Your task to perform on an android device: set an alarm Image 0: 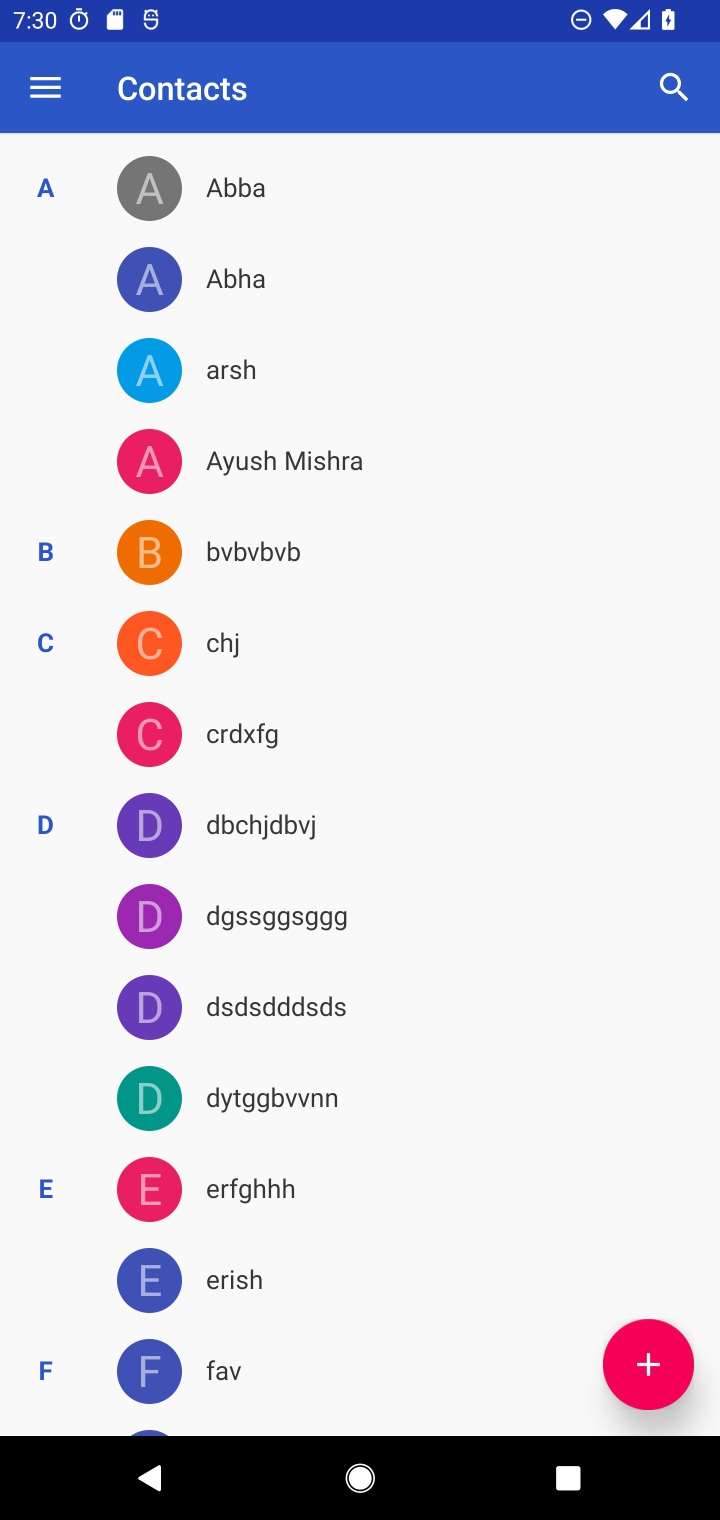
Step 0: press home button
Your task to perform on an android device: set an alarm Image 1: 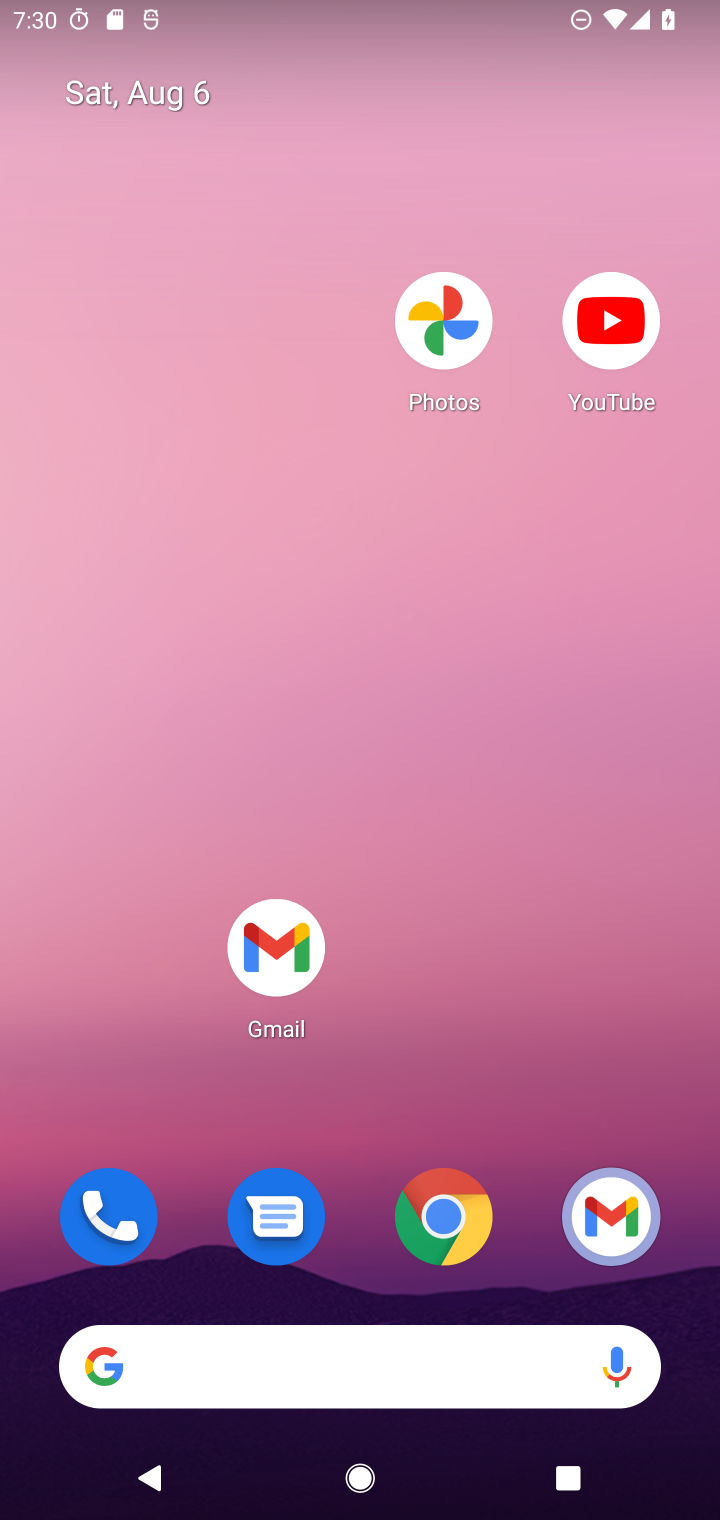
Step 1: drag from (493, 1058) to (568, 0)
Your task to perform on an android device: set an alarm Image 2: 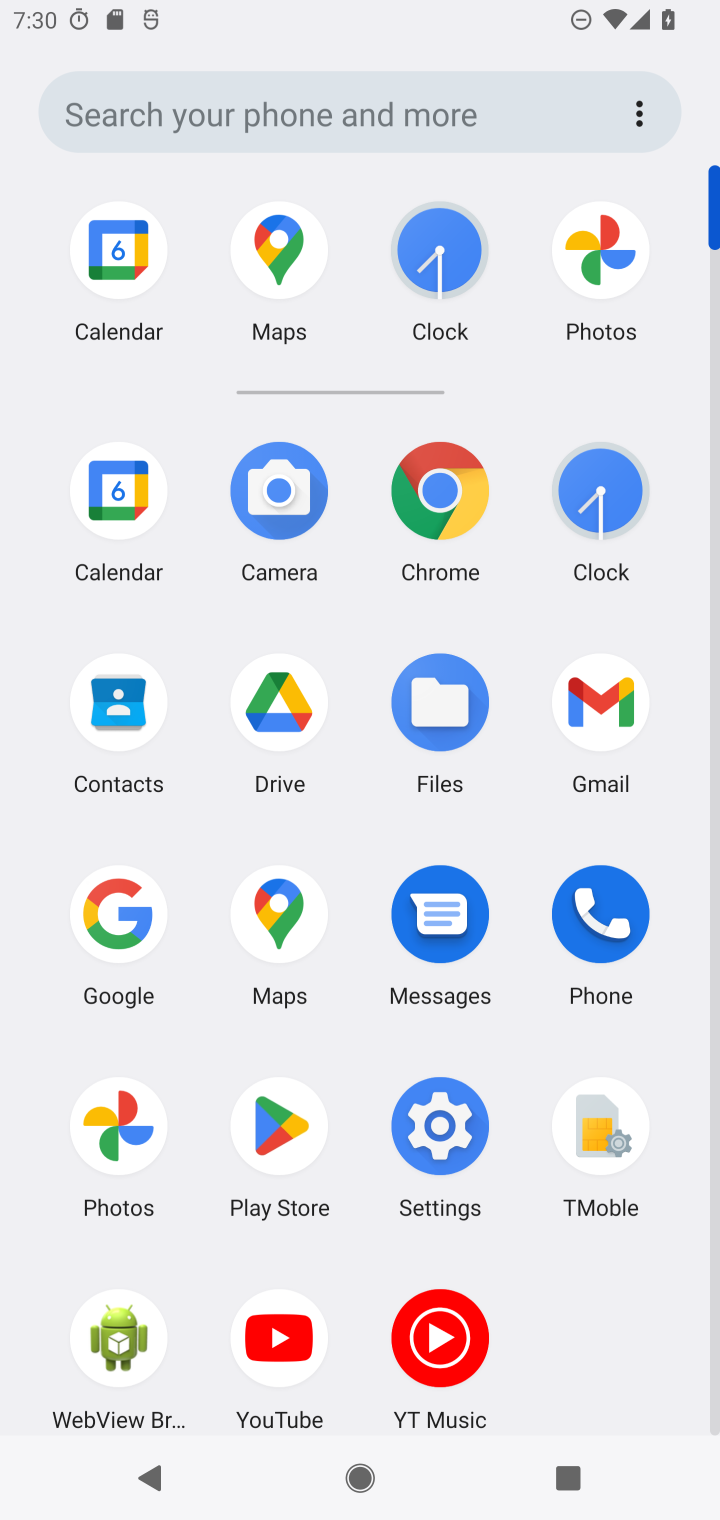
Step 2: click (605, 505)
Your task to perform on an android device: set an alarm Image 3: 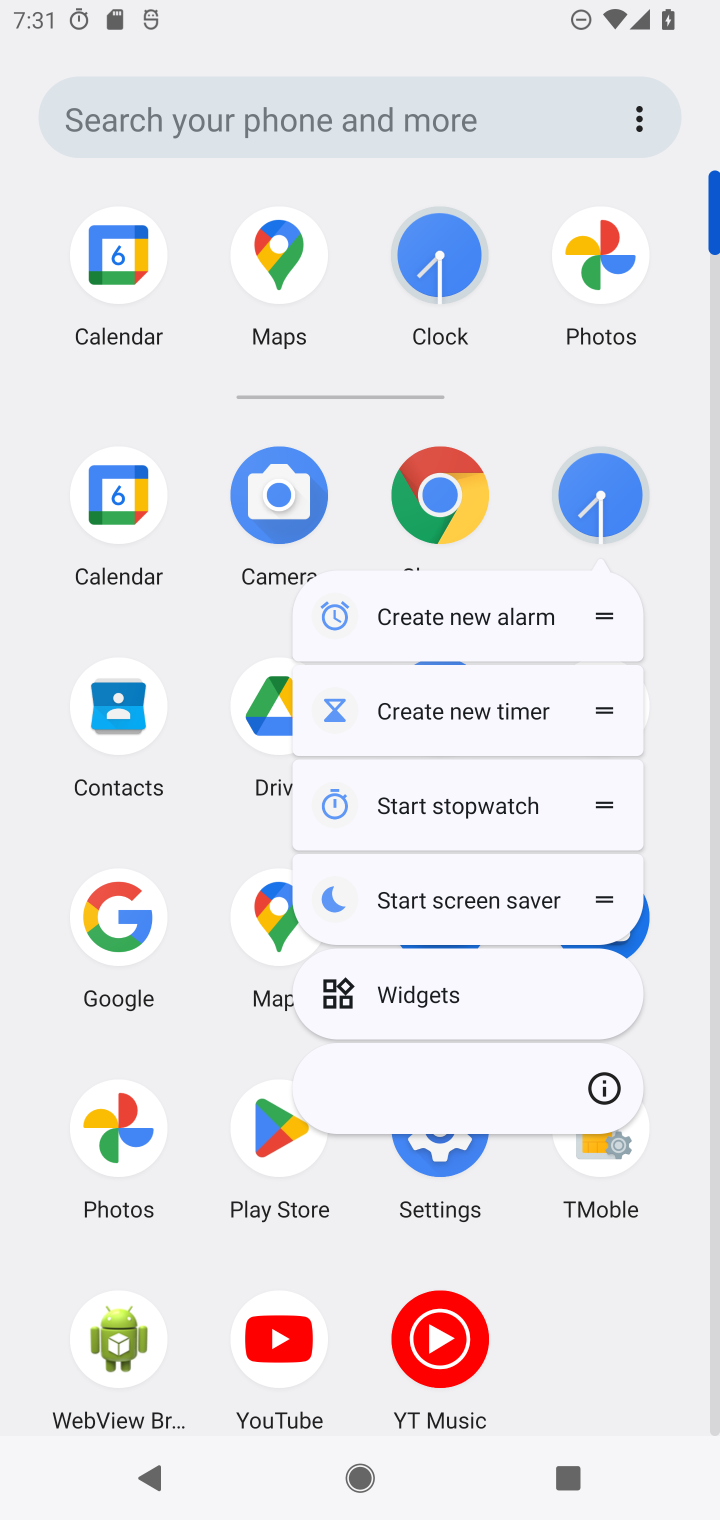
Step 3: click (615, 501)
Your task to perform on an android device: set an alarm Image 4: 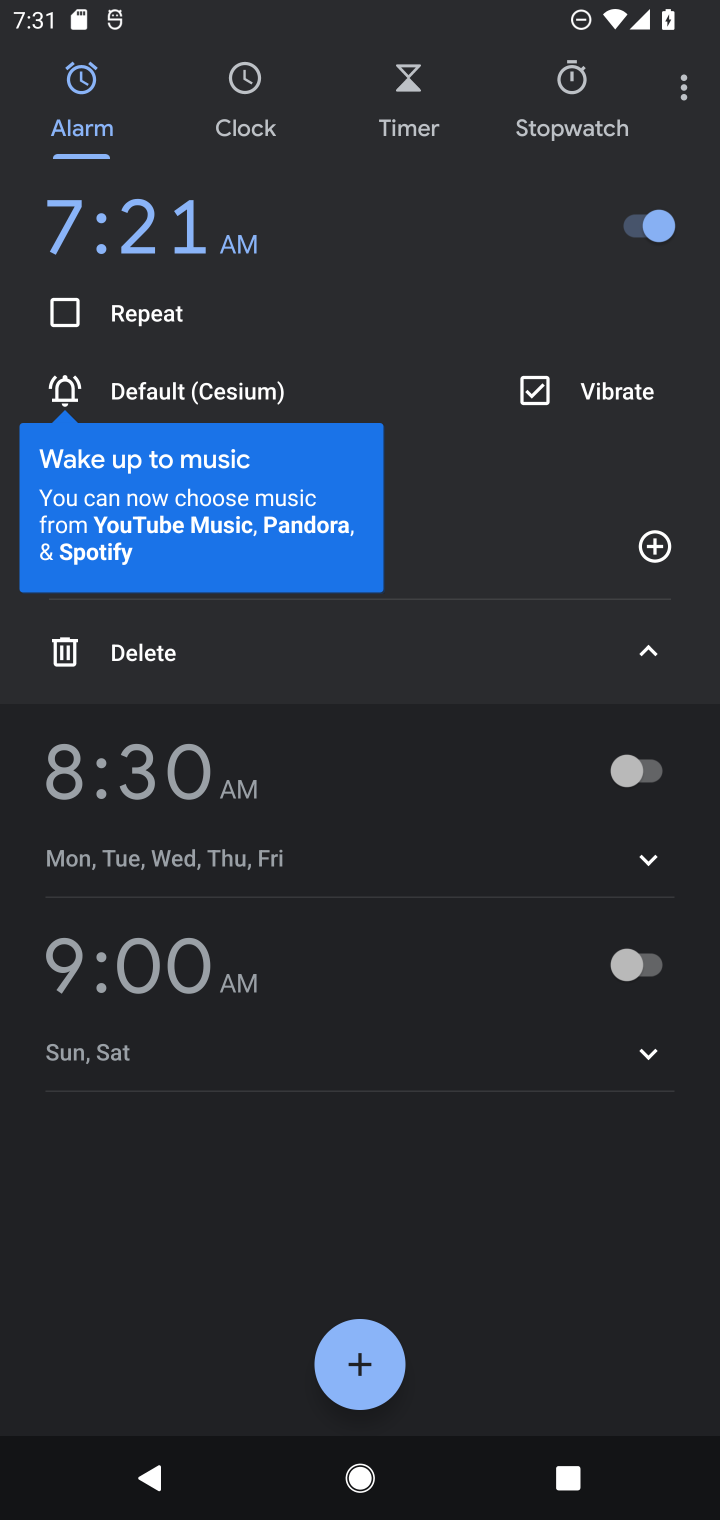
Step 4: task complete